Your task to perform on an android device: Open calendar and show me the second week of next month Image 0: 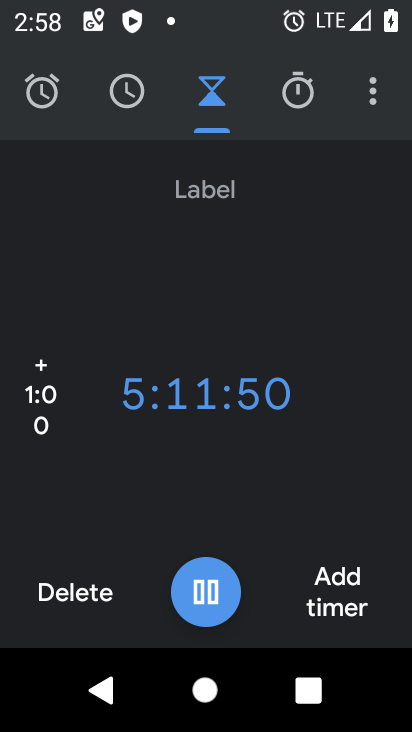
Step 0: press home button
Your task to perform on an android device: Open calendar and show me the second week of next month Image 1: 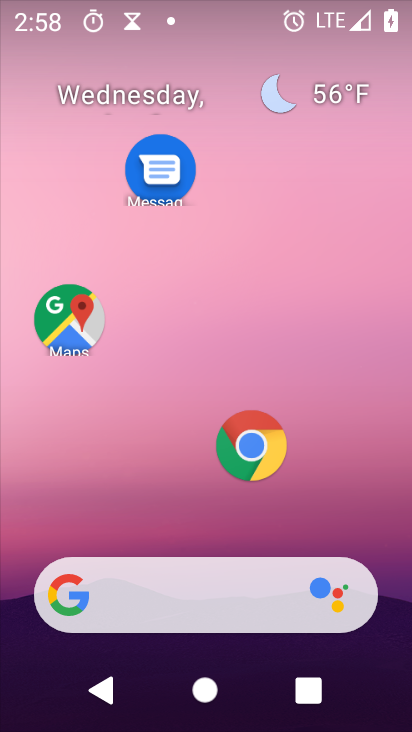
Step 1: drag from (205, 527) to (158, 117)
Your task to perform on an android device: Open calendar and show me the second week of next month Image 2: 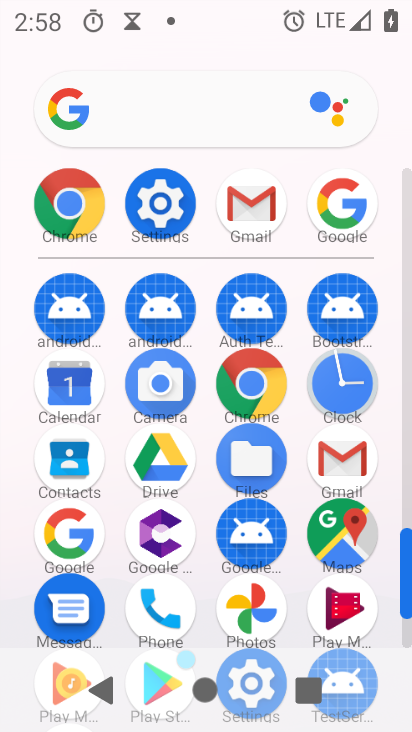
Step 2: click (63, 398)
Your task to perform on an android device: Open calendar and show me the second week of next month Image 3: 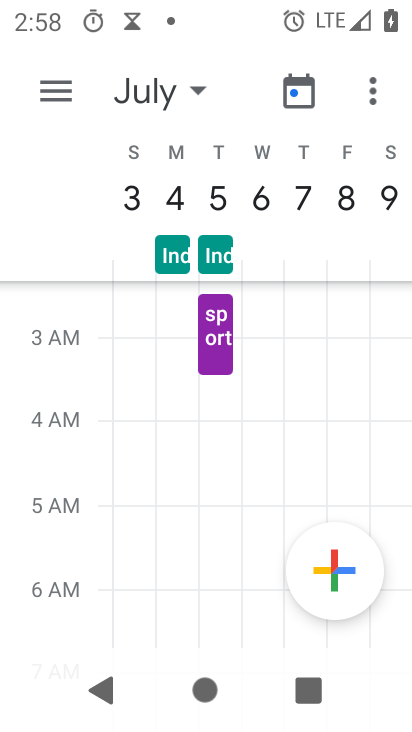
Step 3: click (185, 94)
Your task to perform on an android device: Open calendar and show me the second week of next month Image 4: 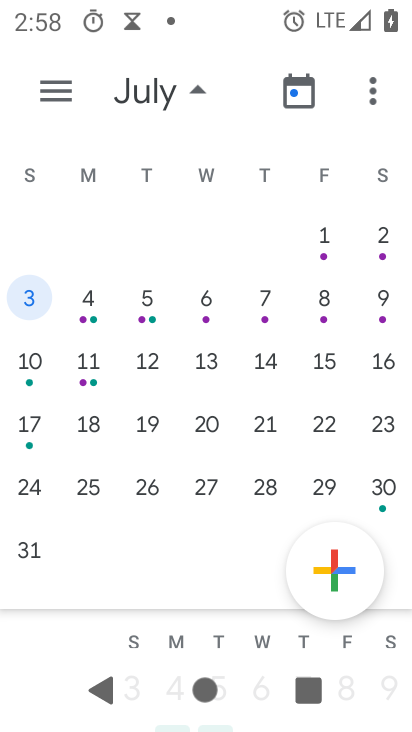
Step 4: click (46, 368)
Your task to perform on an android device: Open calendar and show me the second week of next month Image 5: 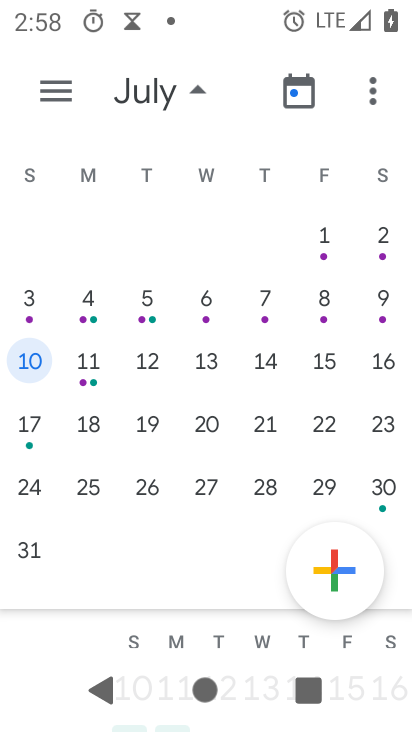
Step 5: click (172, 93)
Your task to perform on an android device: Open calendar and show me the second week of next month Image 6: 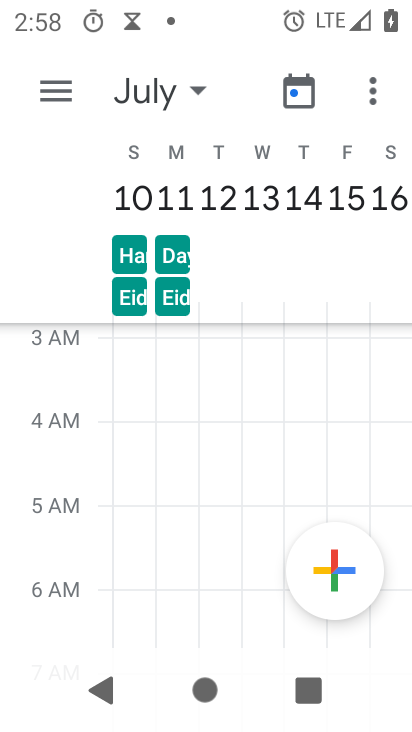
Step 6: task complete